Your task to perform on an android device: snooze an email in the gmail app Image 0: 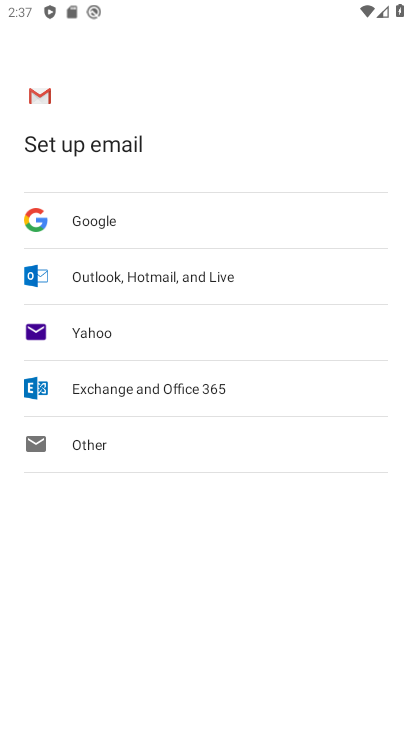
Step 0: press home button
Your task to perform on an android device: snooze an email in the gmail app Image 1: 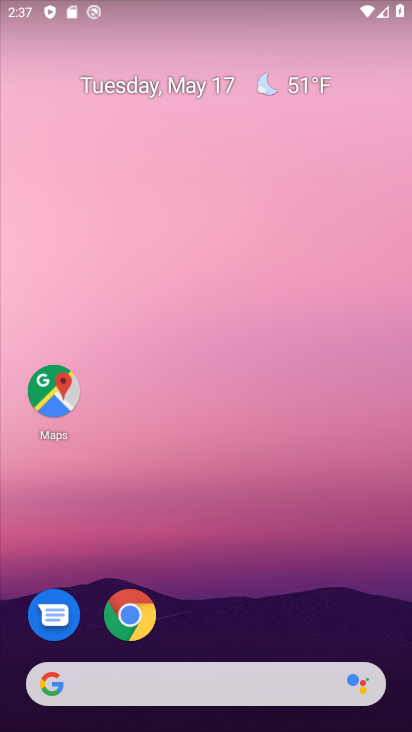
Step 1: drag from (211, 637) to (273, 132)
Your task to perform on an android device: snooze an email in the gmail app Image 2: 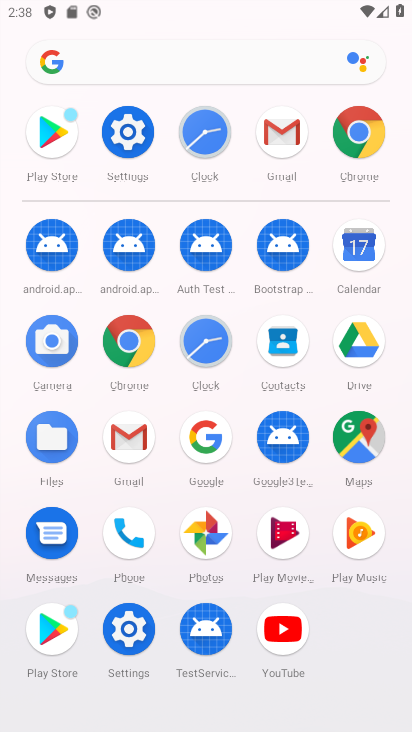
Step 2: click (130, 432)
Your task to perform on an android device: snooze an email in the gmail app Image 3: 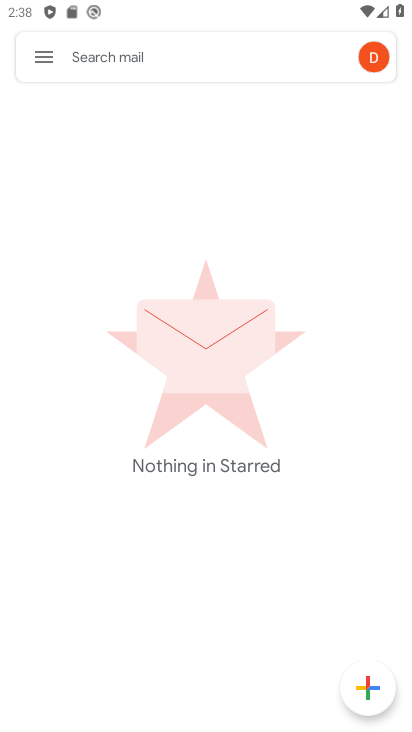
Step 3: click (37, 64)
Your task to perform on an android device: snooze an email in the gmail app Image 4: 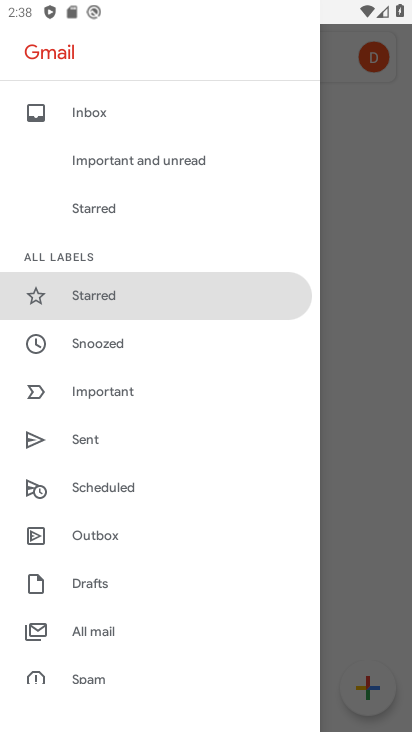
Step 4: click (114, 633)
Your task to perform on an android device: snooze an email in the gmail app Image 5: 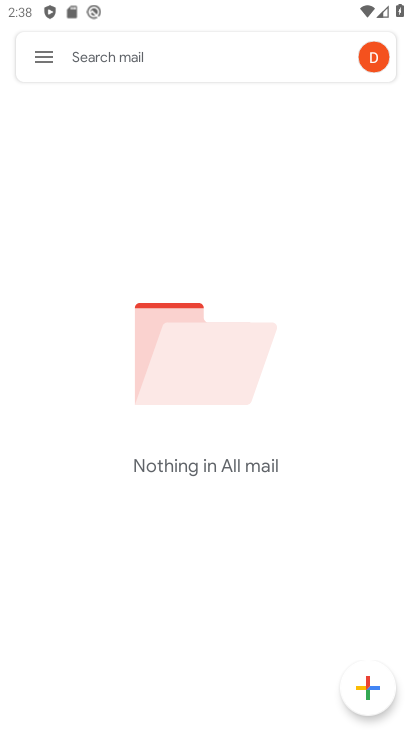
Step 5: task complete